Your task to perform on an android device: Check the new Jordans on Nike. Image 0: 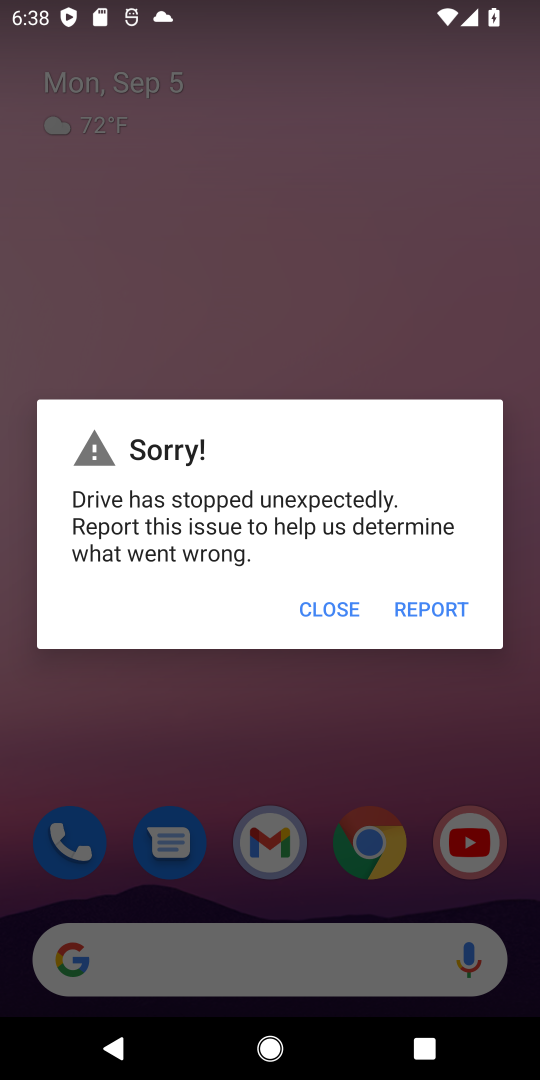
Step 0: press home button
Your task to perform on an android device: Check the new Jordans on Nike. Image 1: 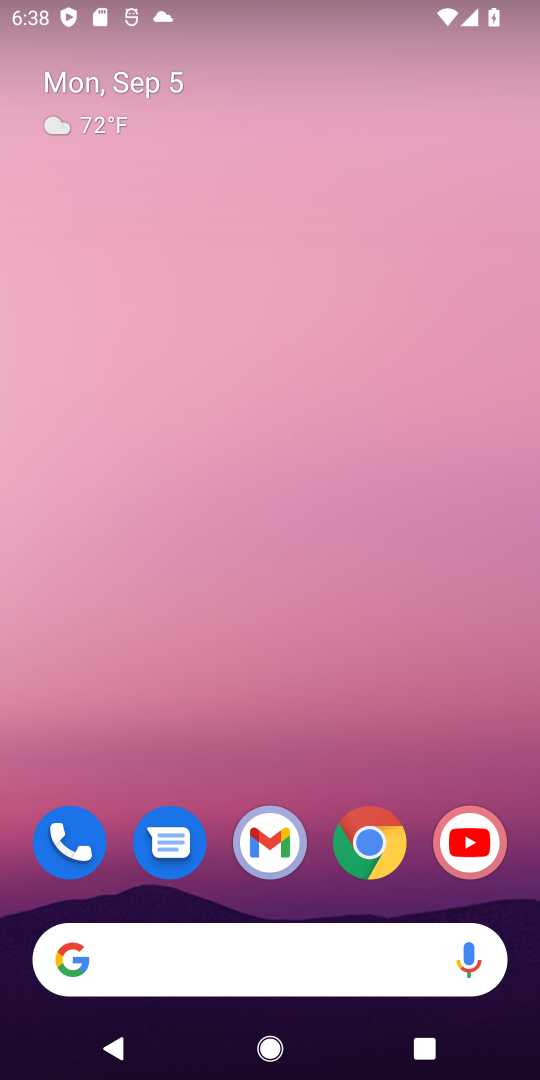
Step 1: click (372, 845)
Your task to perform on an android device: Check the new Jordans on Nike. Image 2: 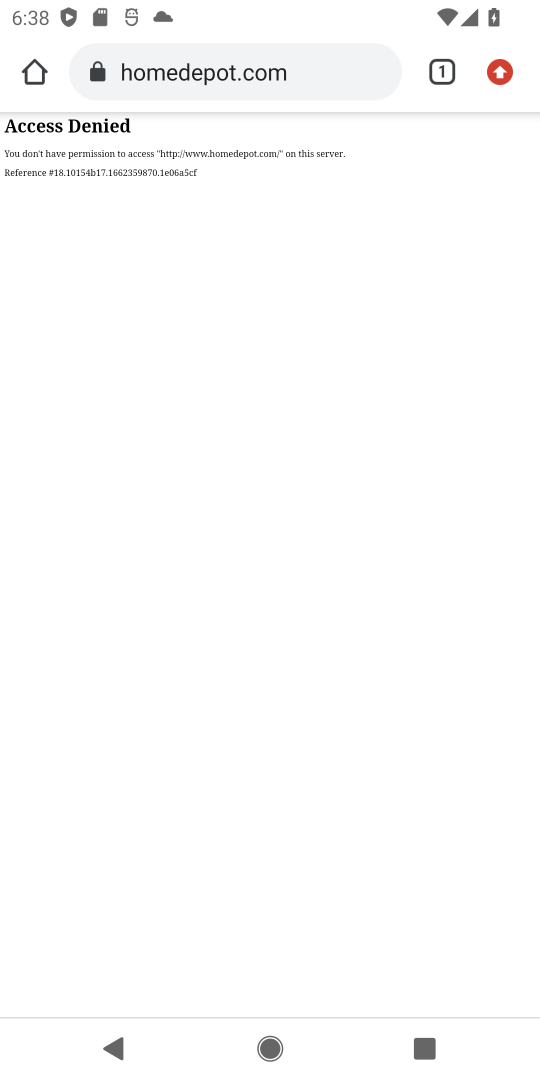
Step 2: click (314, 77)
Your task to perform on an android device: Check the new Jordans on Nike. Image 3: 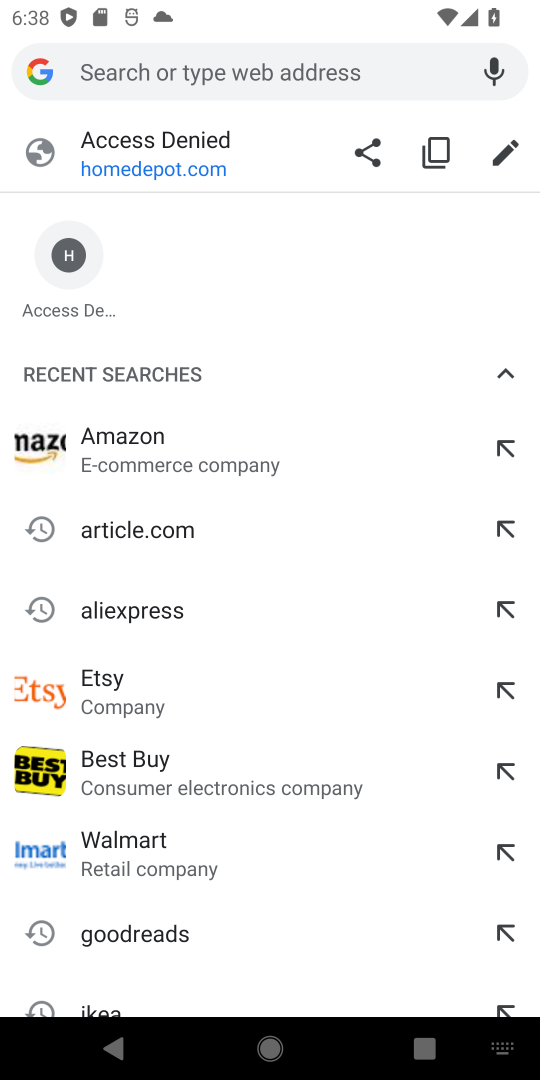
Step 3: type "Nike"
Your task to perform on an android device: Check the new Jordans on Nike. Image 4: 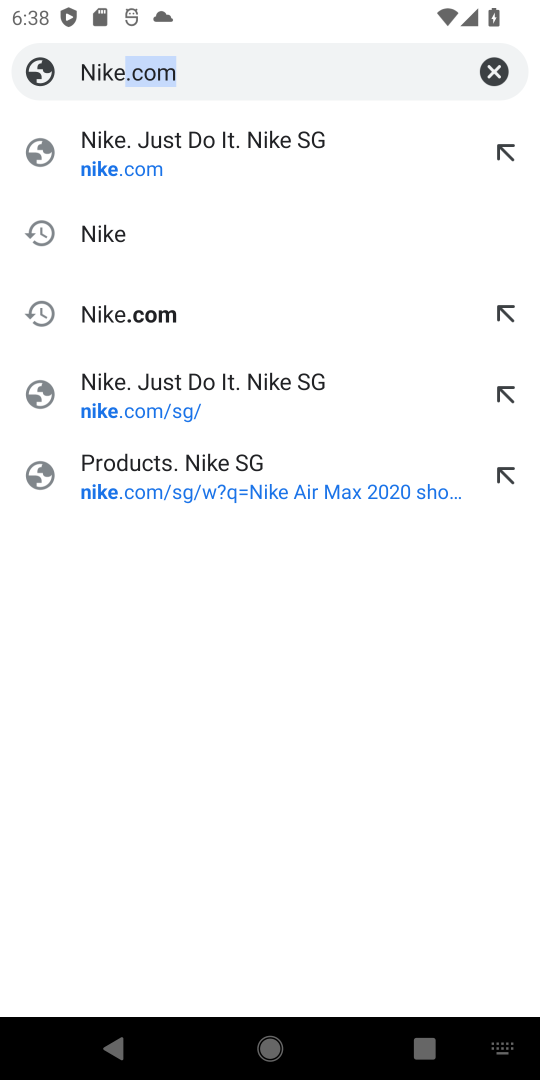
Step 4: click (116, 241)
Your task to perform on an android device: Check the new Jordans on Nike. Image 5: 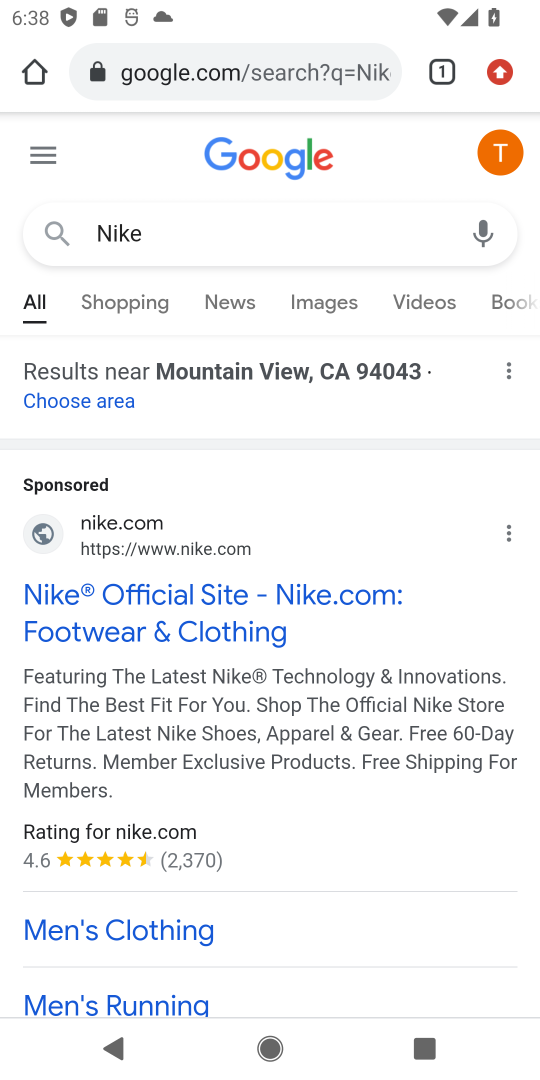
Step 5: drag from (244, 838) to (399, 586)
Your task to perform on an android device: Check the new Jordans on Nike. Image 6: 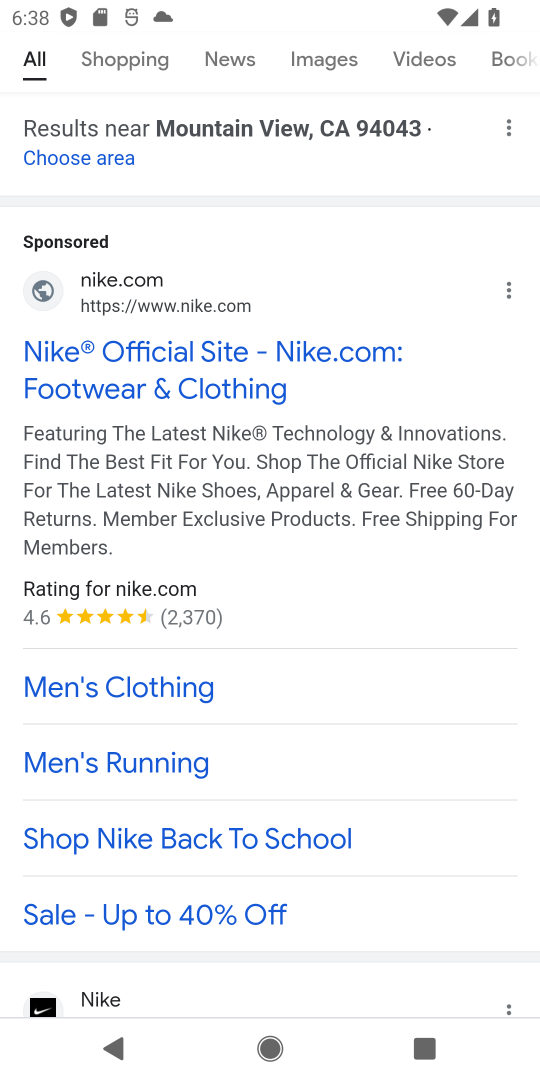
Step 6: drag from (190, 972) to (369, 665)
Your task to perform on an android device: Check the new Jordans on Nike. Image 7: 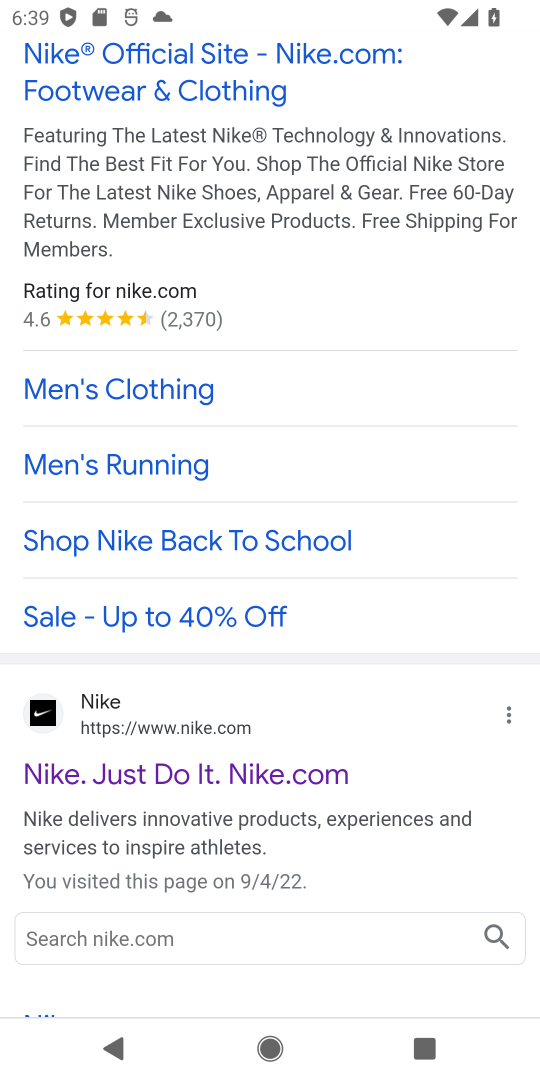
Step 7: click (292, 790)
Your task to perform on an android device: Check the new Jordans on Nike. Image 8: 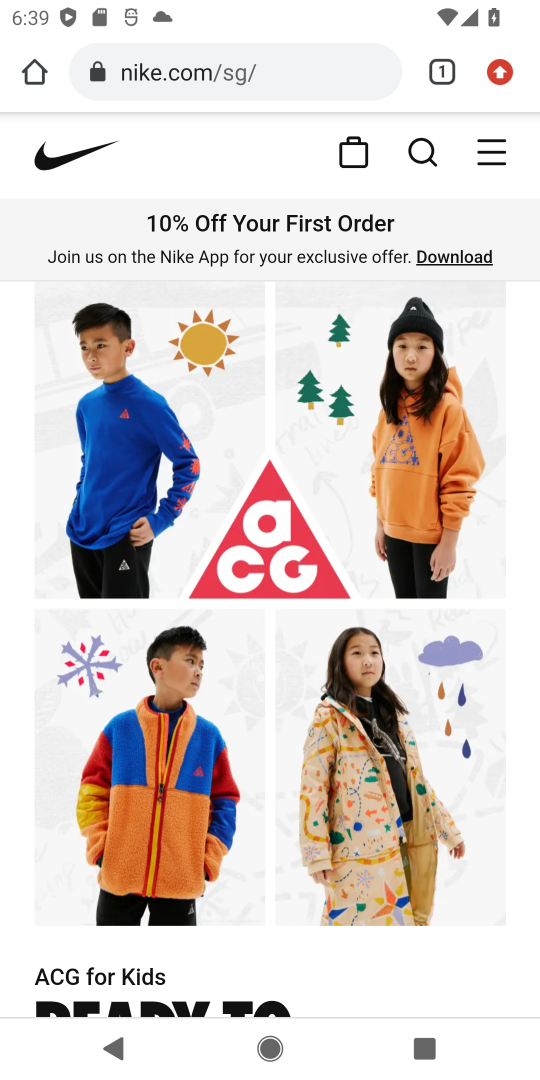
Step 8: click (434, 158)
Your task to perform on an android device: Check the new Jordans on Nike. Image 9: 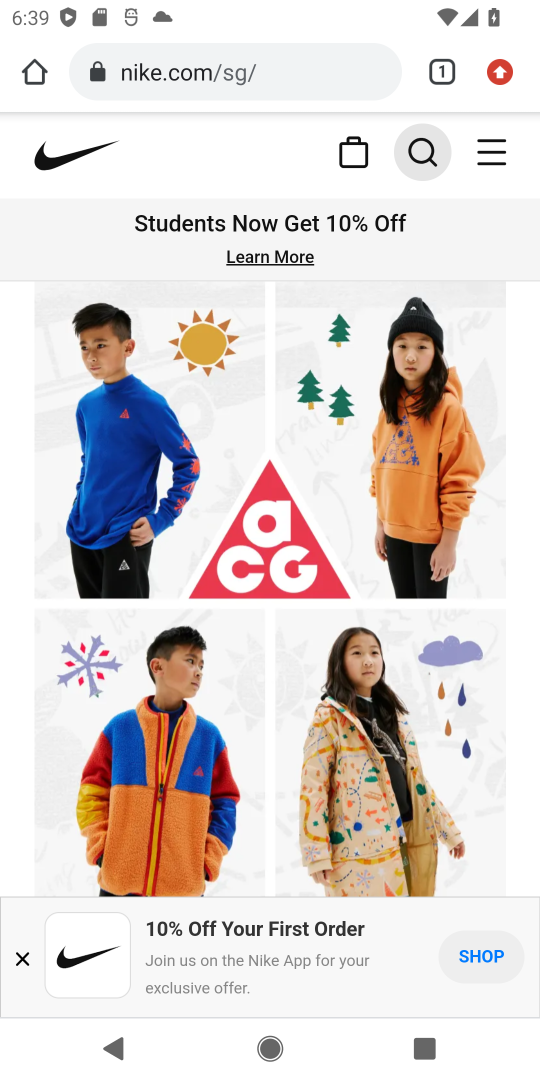
Step 9: click (431, 155)
Your task to perform on an android device: Check the new Jordans on Nike. Image 10: 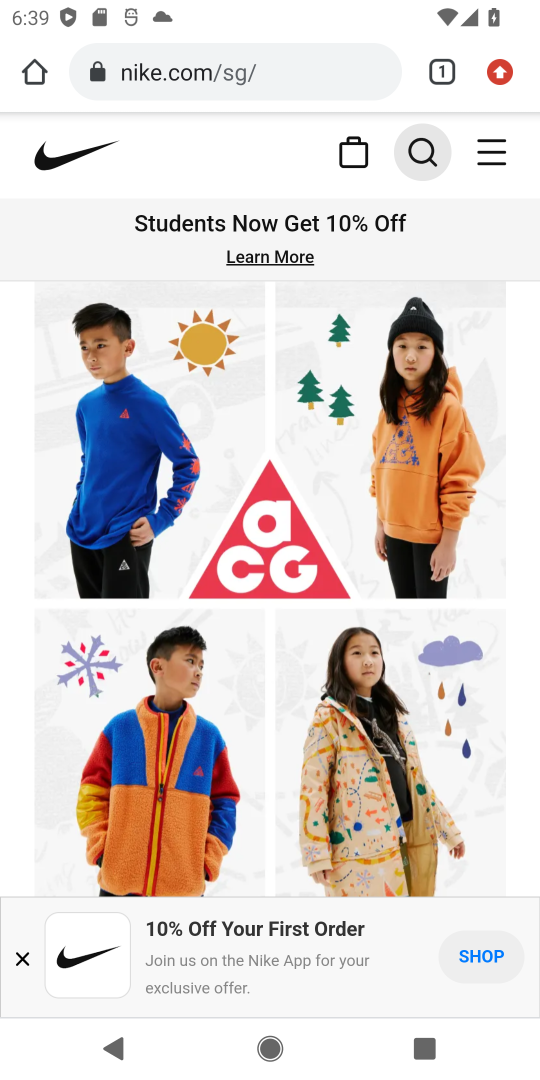
Step 10: click (421, 148)
Your task to perform on an android device: Check the new Jordans on Nike. Image 11: 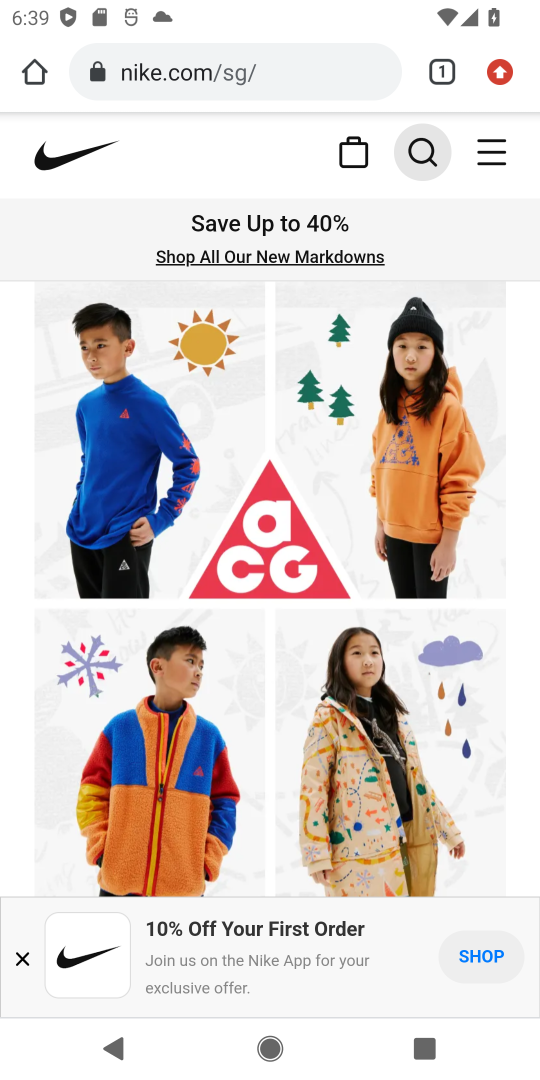
Step 11: click (415, 149)
Your task to perform on an android device: Check the new Jordans on Nike. Image 12: 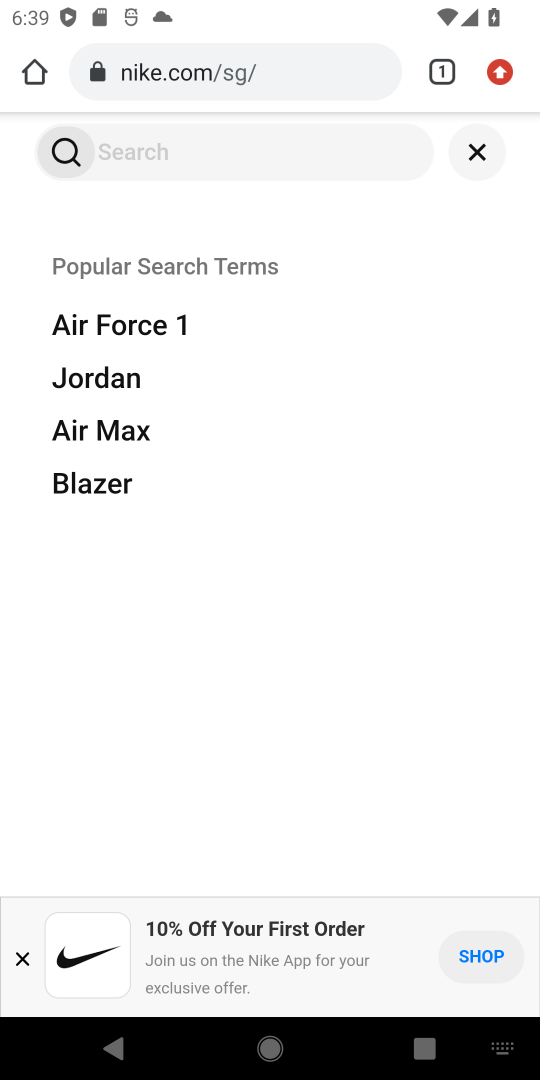
Step 12: click (248, 141)
Your task to perform on an android device: Check the new Jordans on Nike. Image 13: 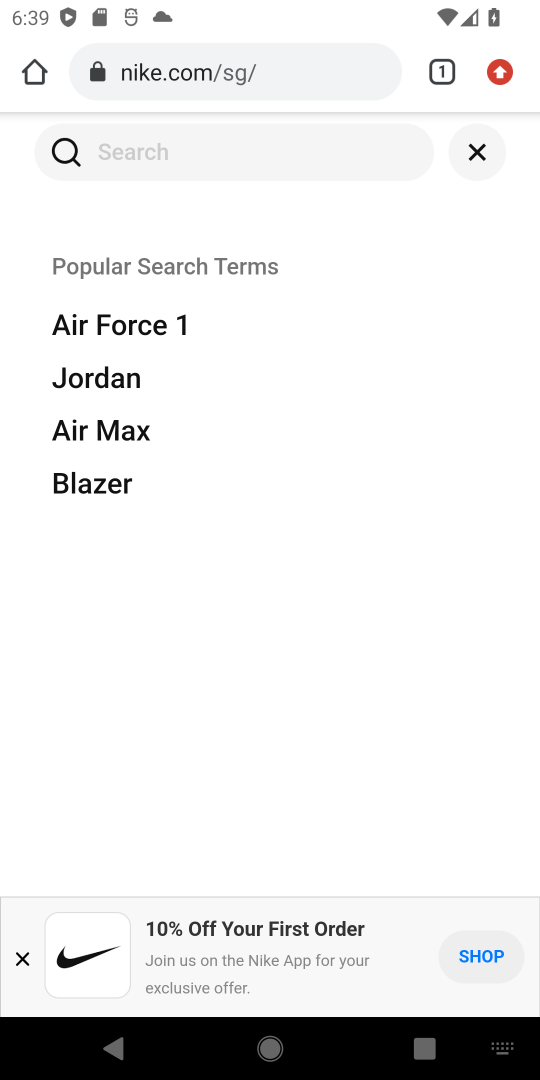
Step 13: type "new Jordans"
Your task to perform on an android device: Check the new Jordans on Nike. Image 14: 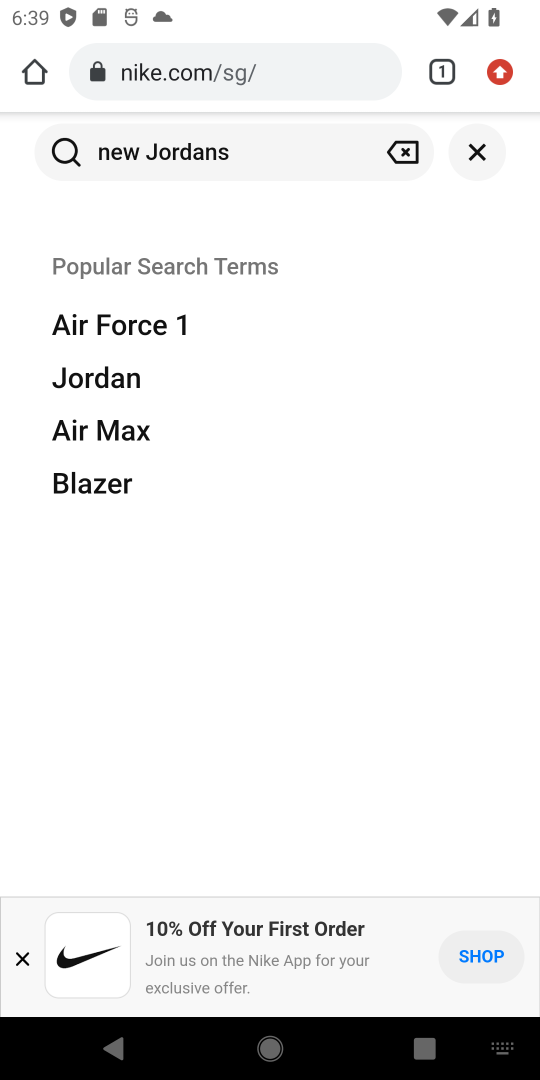
Step 14: click (69, 151)
Your task to perform on an android device: Check the new Jordans on Nike. Image 15: 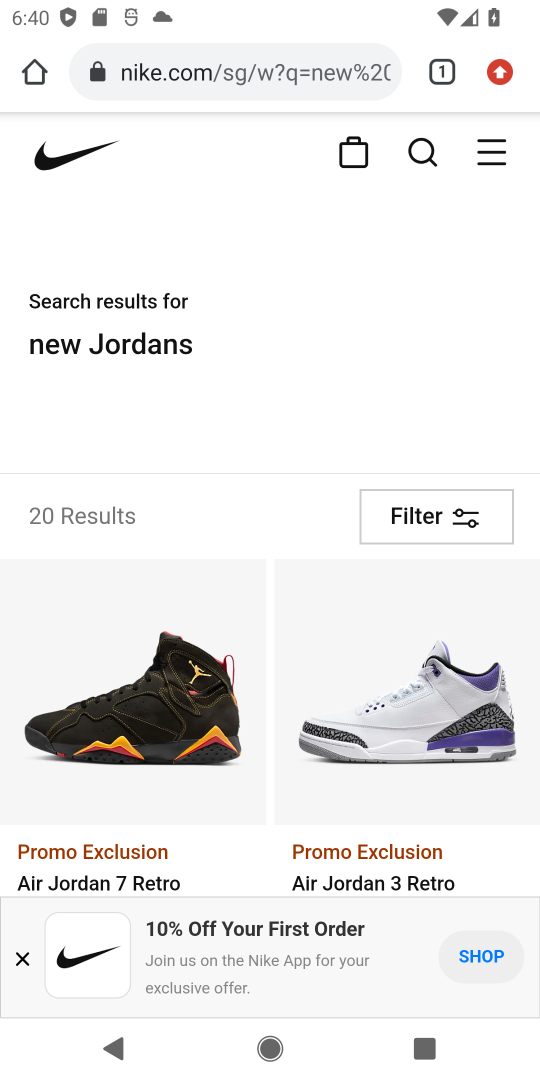
Step 15: task complete